Your task to perform on an android device: Open calendar and show me the third week of next month Image 0: 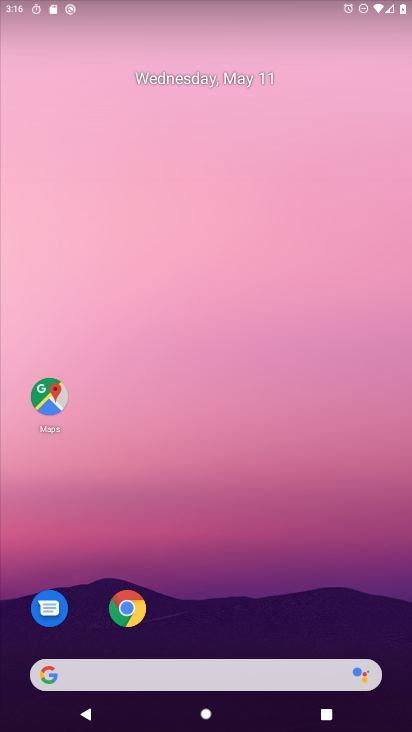
Step 0: drag from (249, 603) to (193, 182)
Your task to perform on an android device: Open calendar and show me the third week of next month Image 1: 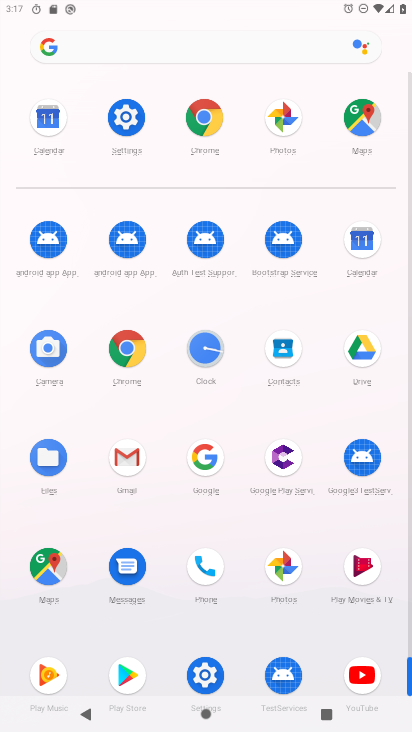
Step 1: click (361, 264)
Your task to perform on an android device: Open calendar and show me the third week of next month Image 2: 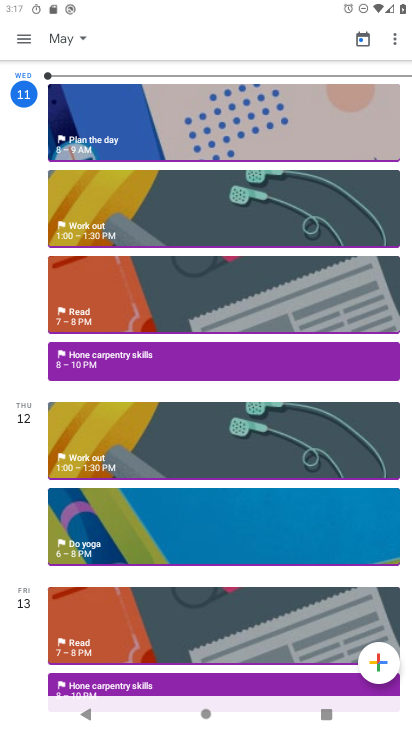
Step 2: drag from (228, 454) to (245, 382)
Your task to perform on an android device: Open calendar and show me the third week of next month Image 3: 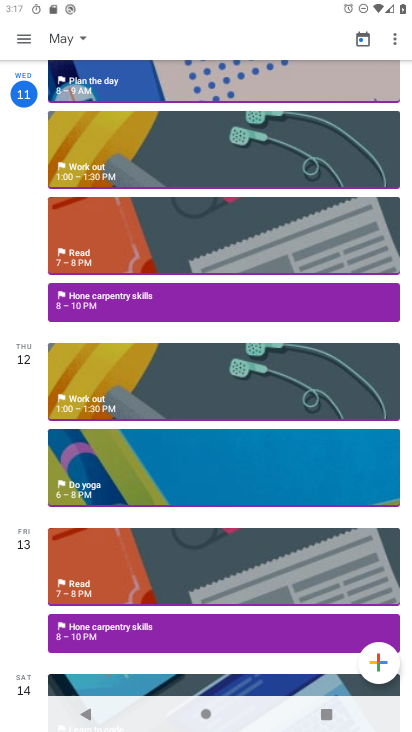
Step 3: drag from (185, 551) to (188, 480)
Your task to perform on an android device: Open calendar and show me the third week of next month Image 4: 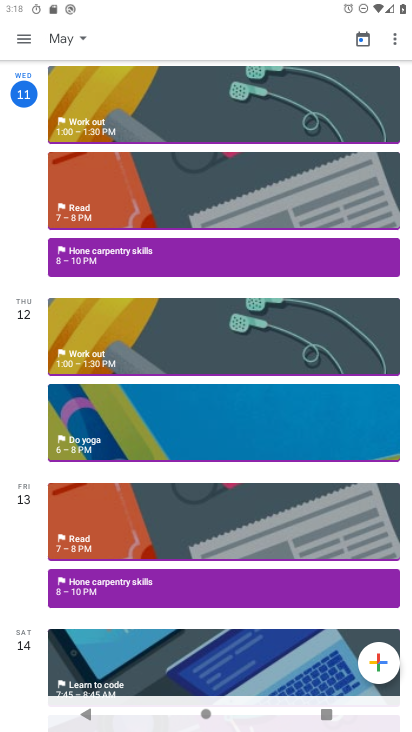
Step 4: click (74, 42)
Your task to perform on an android device: Open calendar and show me the third week of next month Image 5: 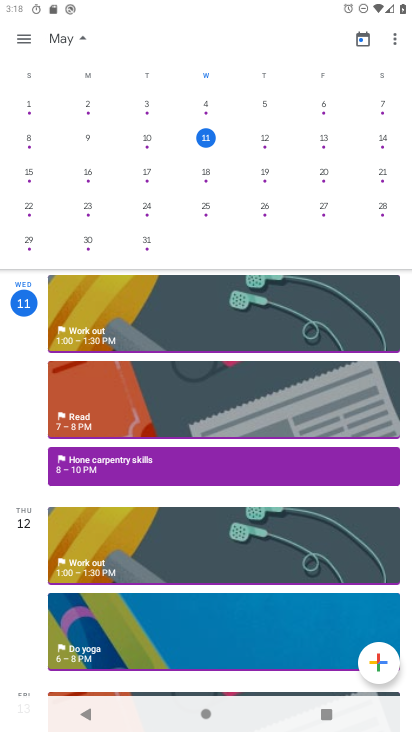
Step 5: drag from (344, 165) to (13, 171)
Your task to perform on an android device: Open calendar and show me the third week of next month Image 6: 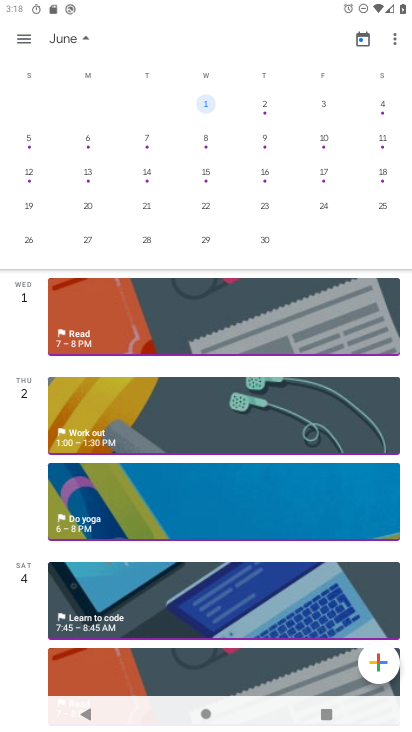
Step 6: click (33, 205)
Your task to perform on an android device: Open calendar and show me the third week of next month Image 7: 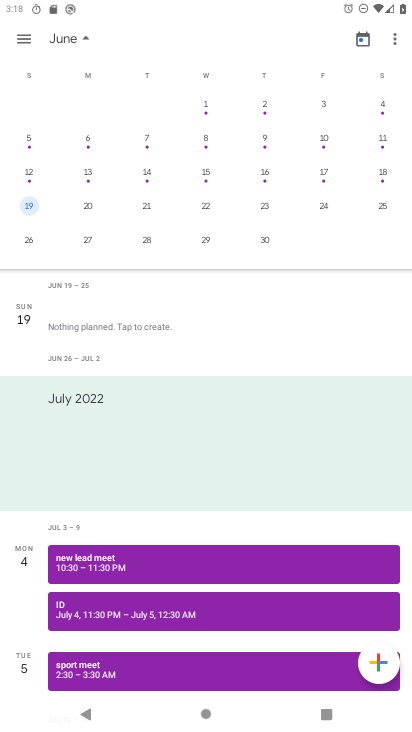
Step 7: click (28, 213)
Your task to perform on an android device: Open calendar and show me the third week of next month Image 8: 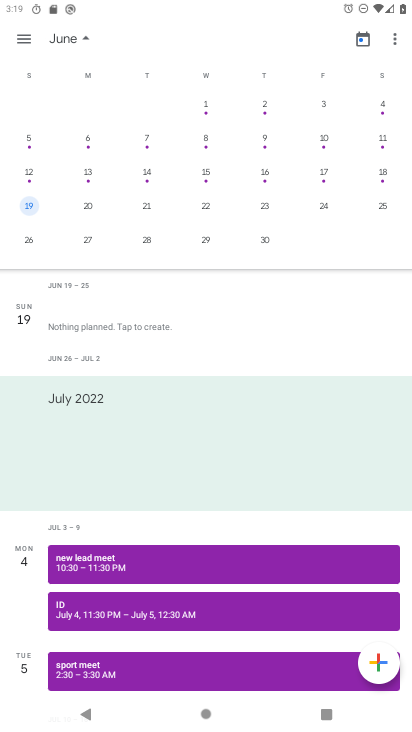
Step 8: task complete